Your task to perform on an android device: turn on airplane mode Image 0: 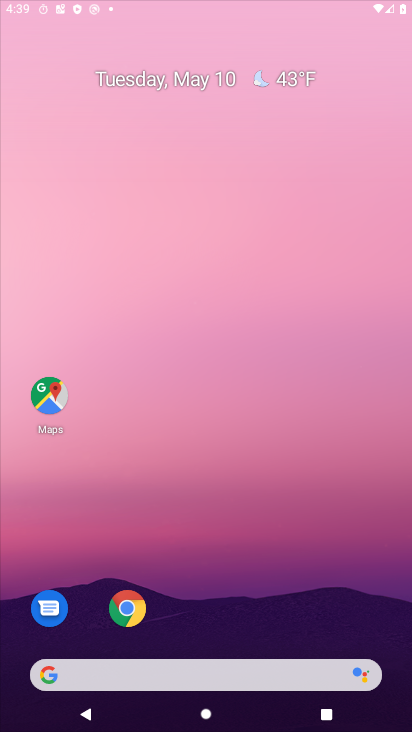
Step 0: click (40, 270)
Your task to perform on an android device: turn on airplane mode Image 1: 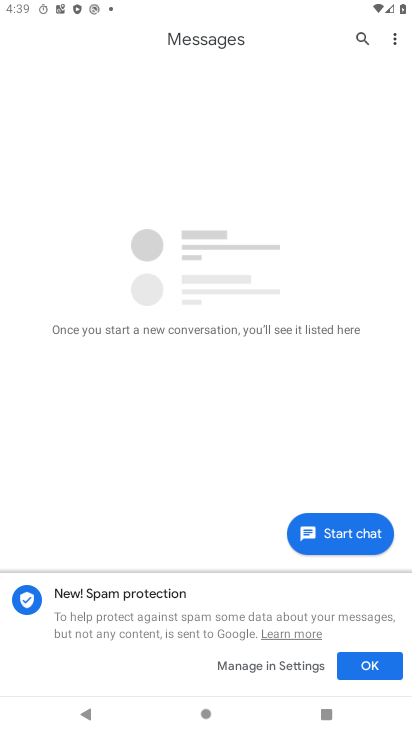
Step 1: press home button
Your task to perform on an android device: turn on airplane mode Image 2: 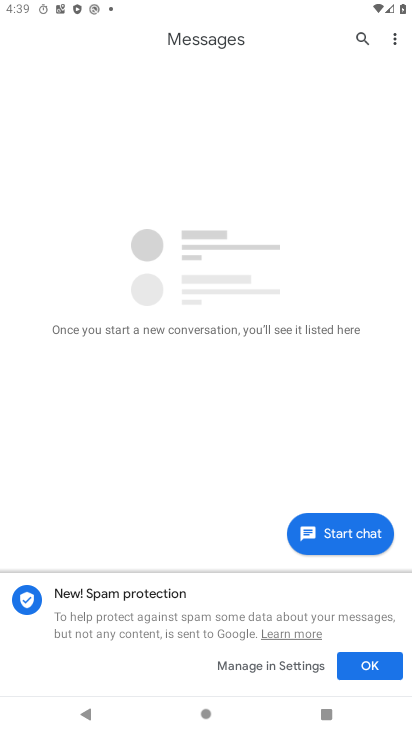
Step 2: press home button
Your task to perform on an android device: turn on airplane mode Image 3: 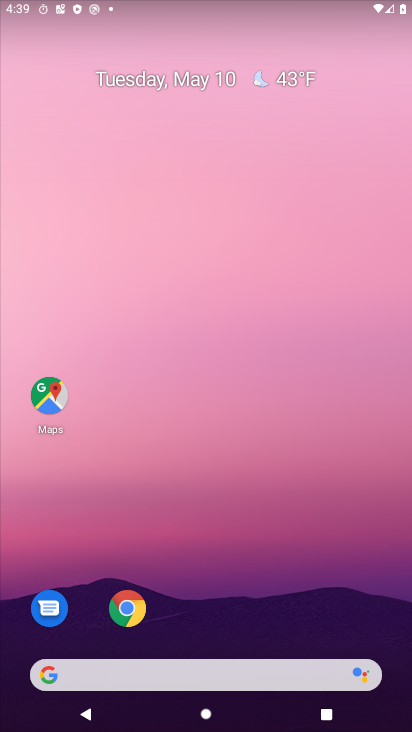
Step 3: drag from (356, 635) to (17, 117)
Your task to perform on an android device: turn on airplane mode Image 4: 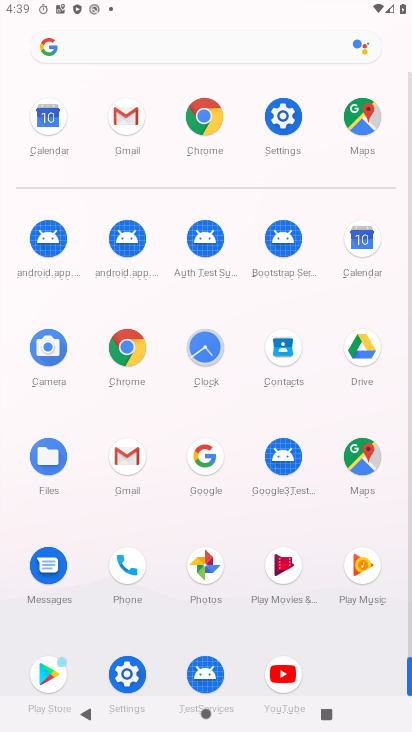
Step 4: click (285, 105)
Your task to perform on an android device: turn on airplane mode Image 5: 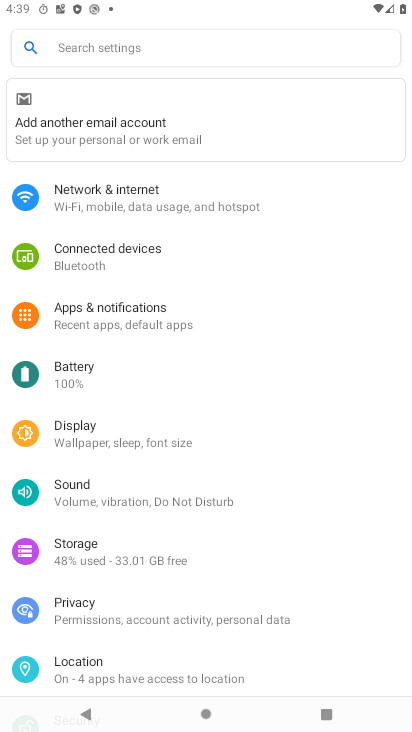
Step 5: click (100, 196)
Your task to perform on an android device: turn on airplane mode Image 6: 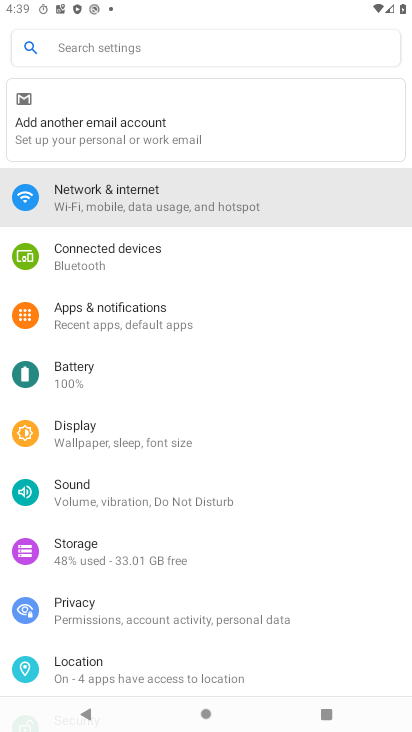
Step 6: click (101, 193)
Your task to perform on an android device: turn on airplane mode Image 7: 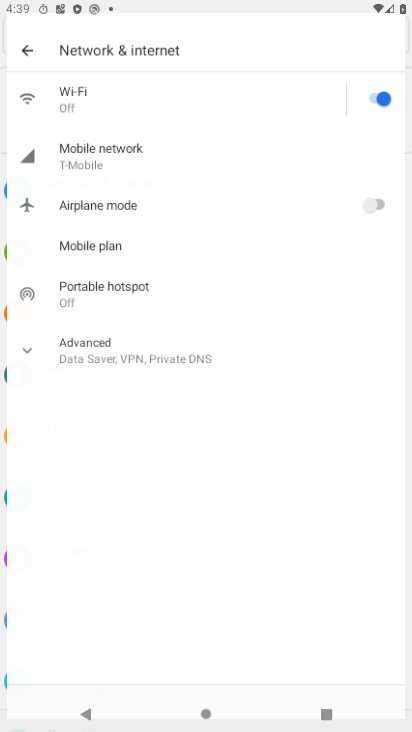
Step 7: click (101, 196)
Your task to perform on an android device: turn on airplane mode Image 8: 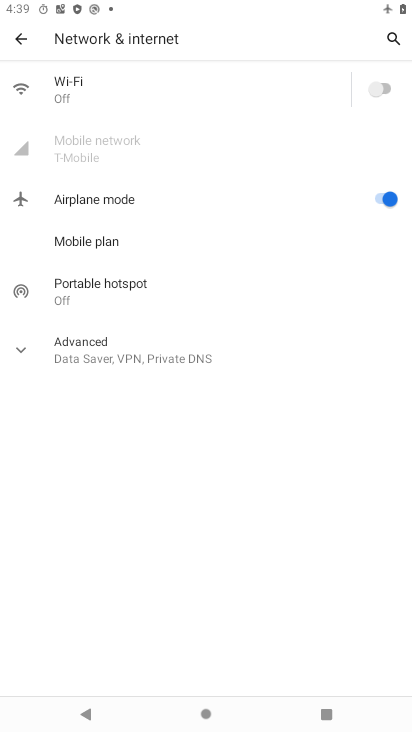
Step 8: task complete